Your task to perform on an android device: Open settings on Google Maps Image 0: 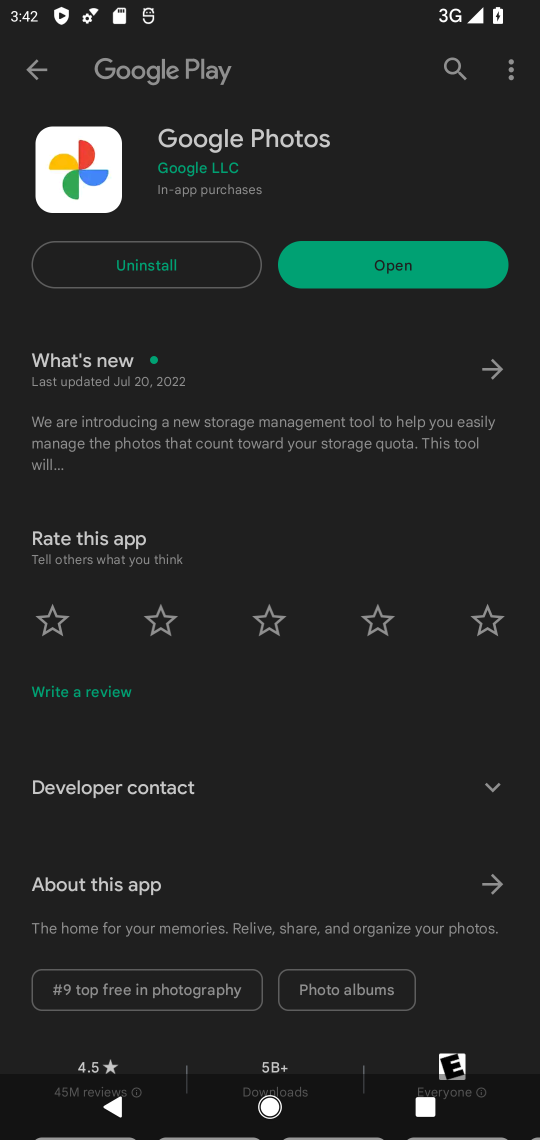
Step 0: press home button
Your task to perform on an android device: Open settings on Google Maps Image 1: 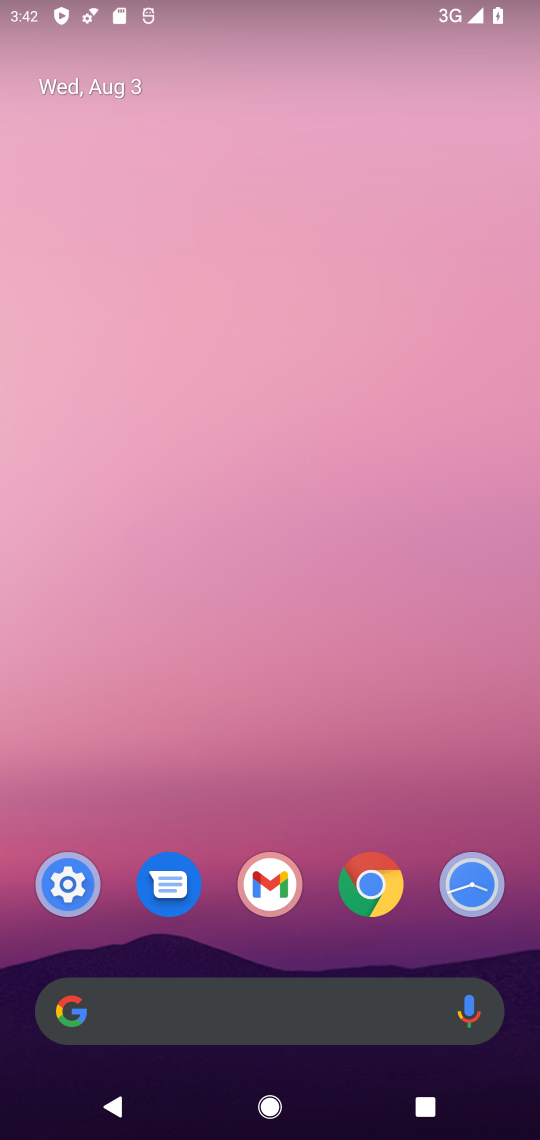
Step 1: drag from (314, 943) to (343, 18)
Your task to perform on an android device: Open settings on Google Maps Image 2: 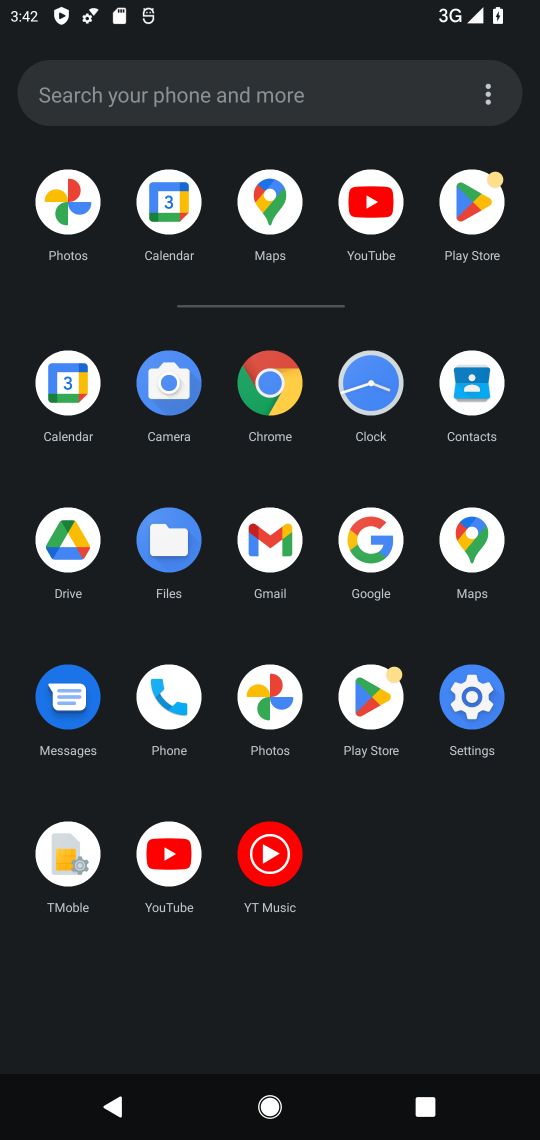
Step 2: click (272, 202)
Your task to perform on an android device: Open settings on Google Maps Image 3: 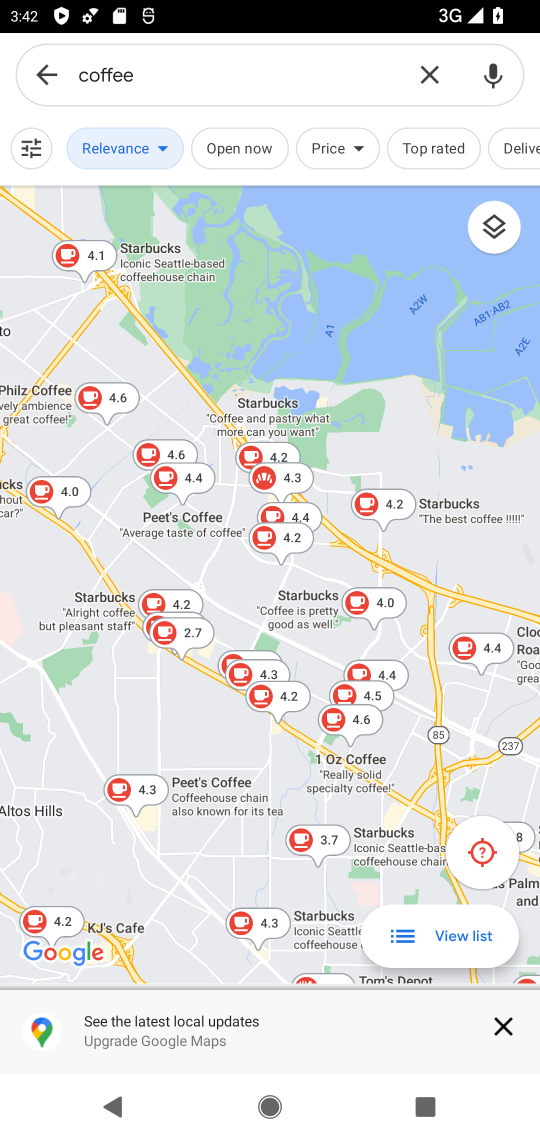
Step 3: click (30, 93)
Your task to perform on an android device: Open settings on Google Maps Image 4: 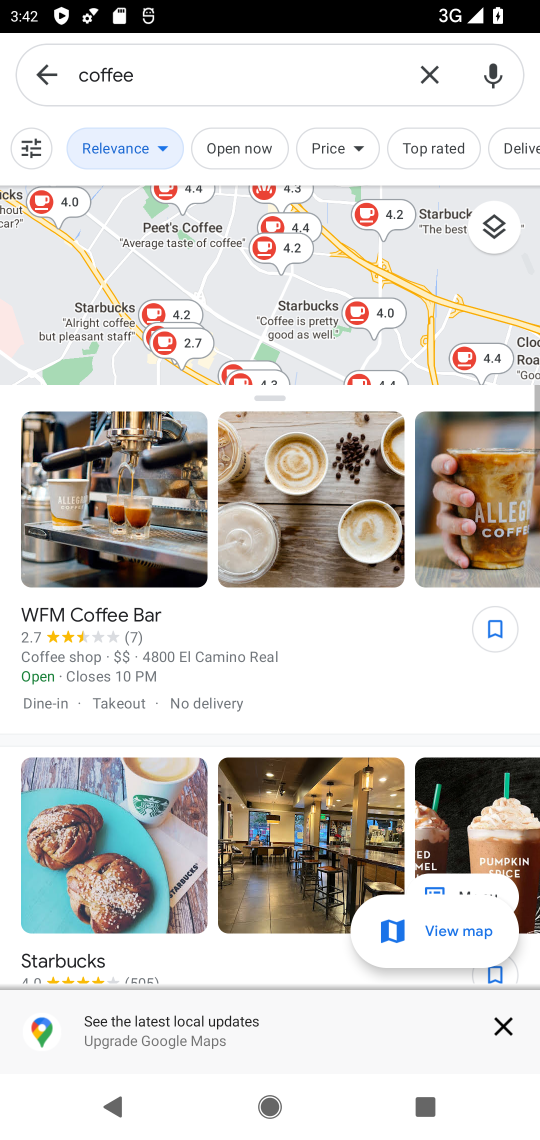
Step 4: click (51, 72)
Your task to perform on an android device: Open settings on Google Maps Image 5: 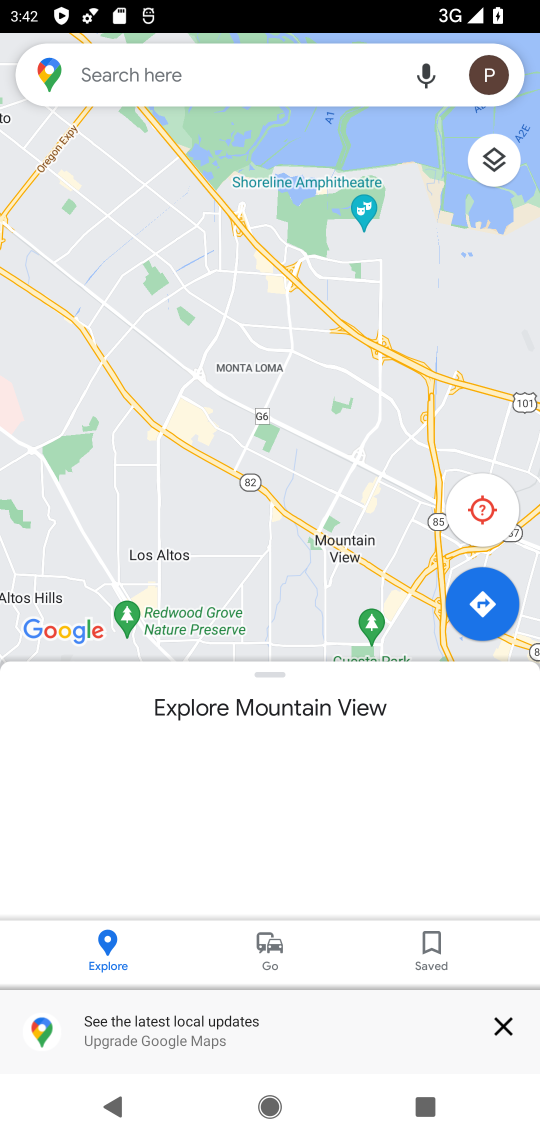
Step 5: click (51, 72)
Your task to perform on an android device: Open settings on Google Maps Image 6: 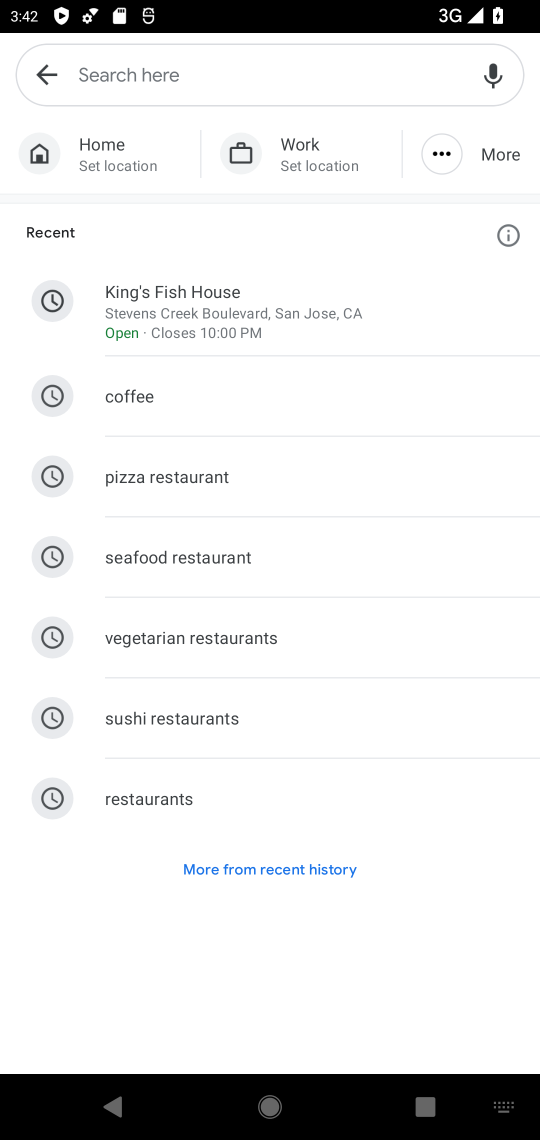
Step 6: click (59, 82)
Your task to perform on an android device: Open settings on Google Maps Image 7: 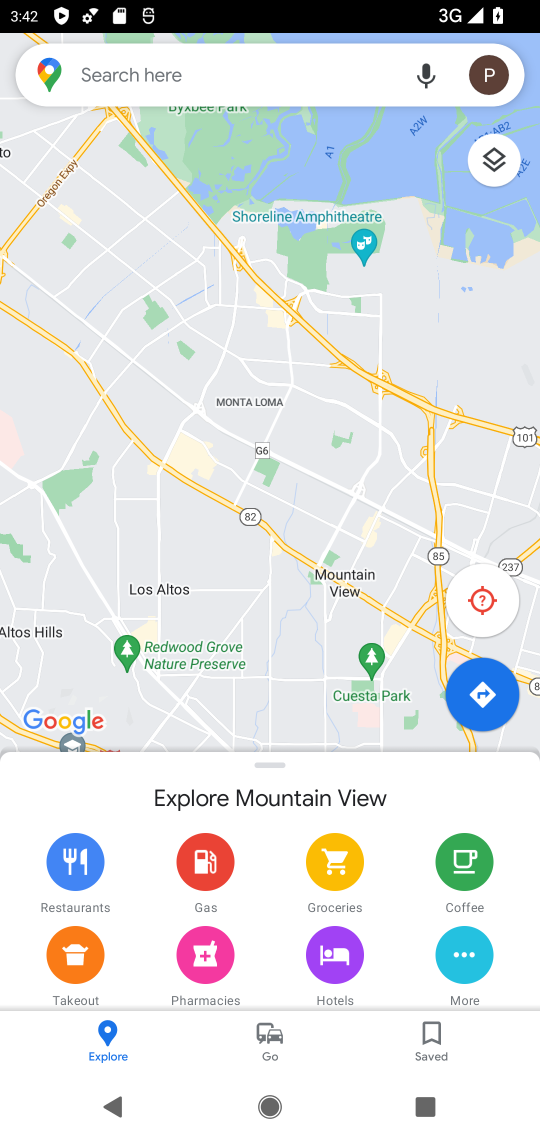
Step 7: click (484, 89)
Your task to perform on an android device: Open settings on Google Maps Image 8: 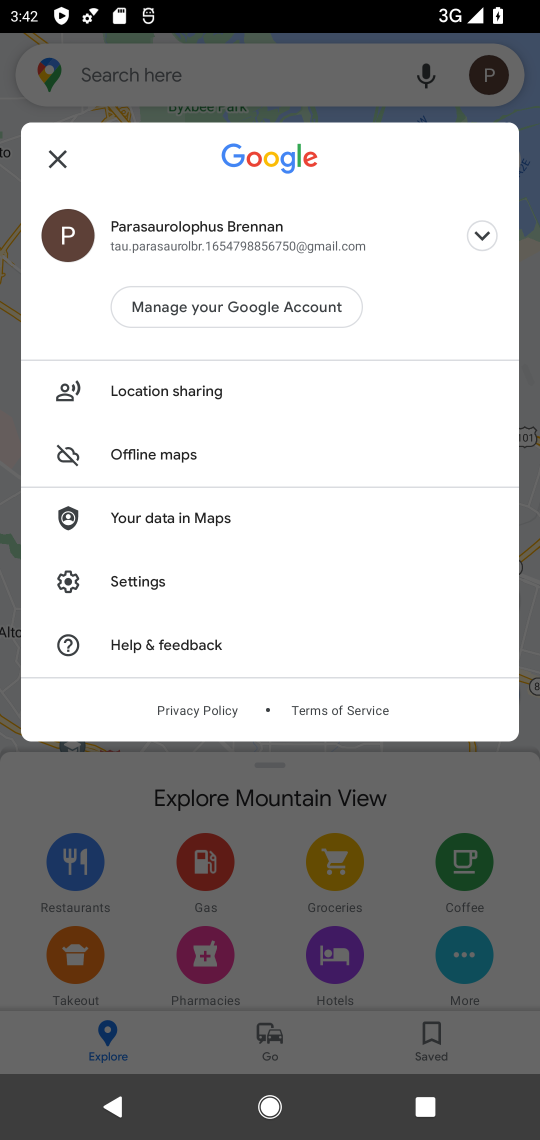
Step 8: click (201, 582)
Your task to perform on an android device: Open settings on Google Maps Image 9: 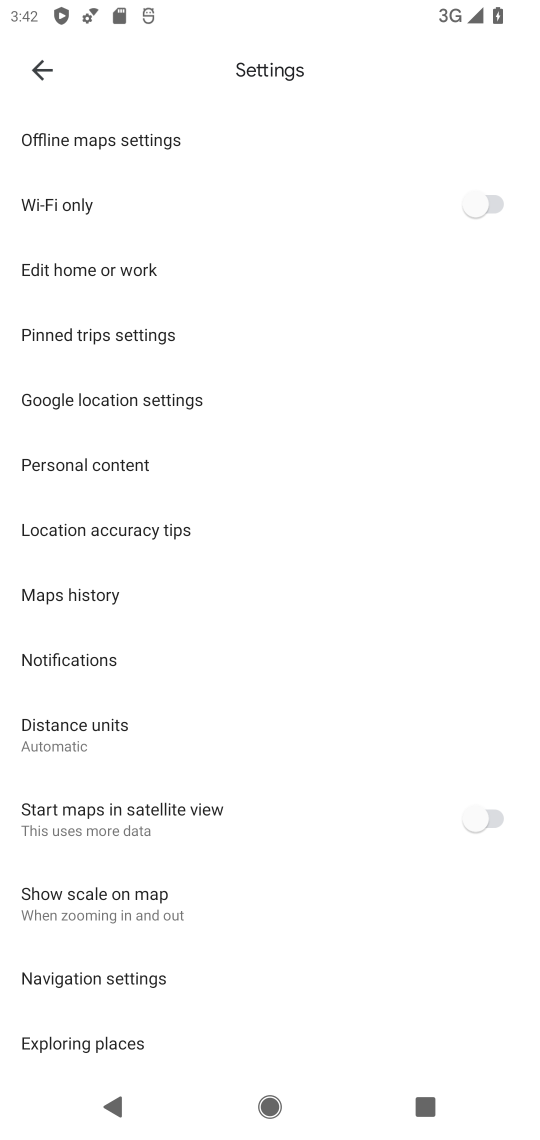
Step 9: task complete